Your task to perform on an android device: What's the weather today? Image 0: 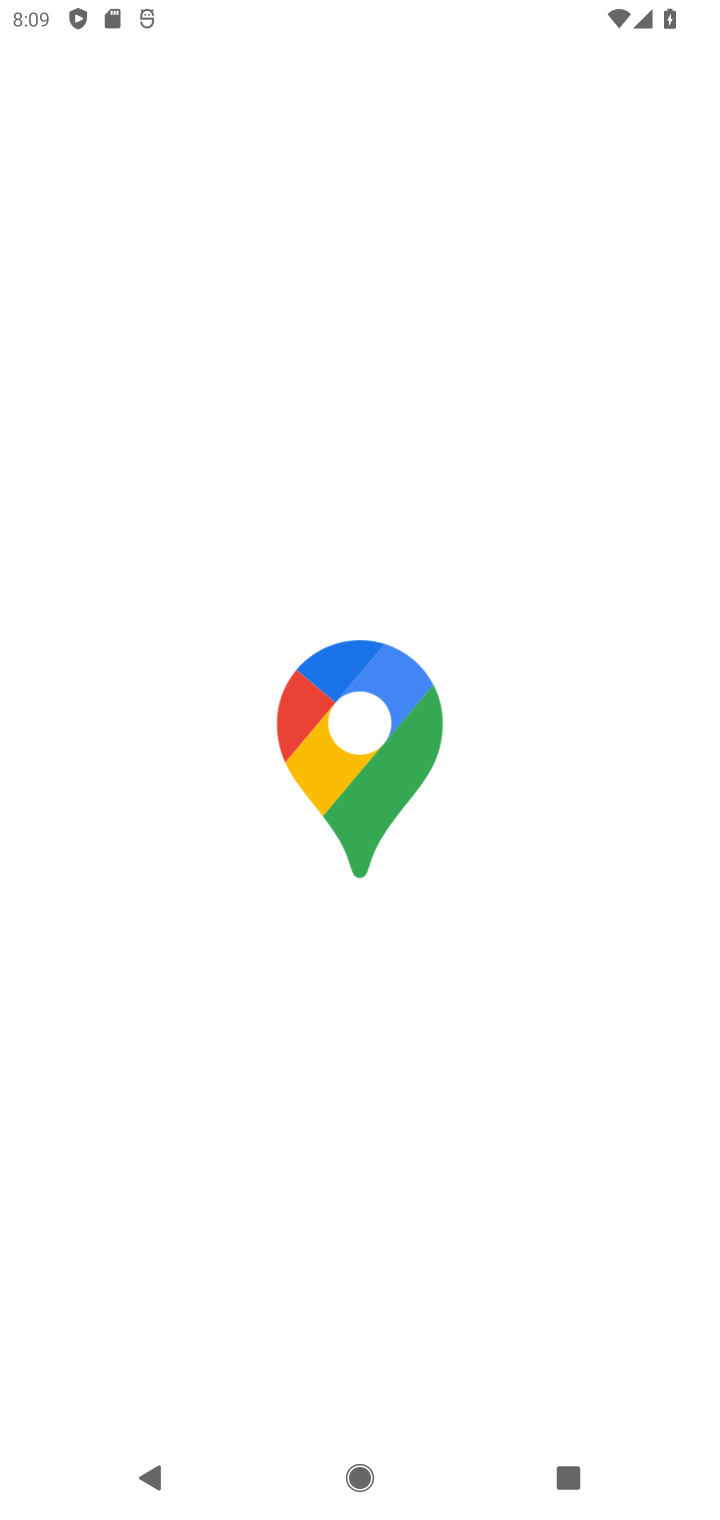
Step 0: press home button
Your task to perform on an android device: What's the weather today? Image 1: 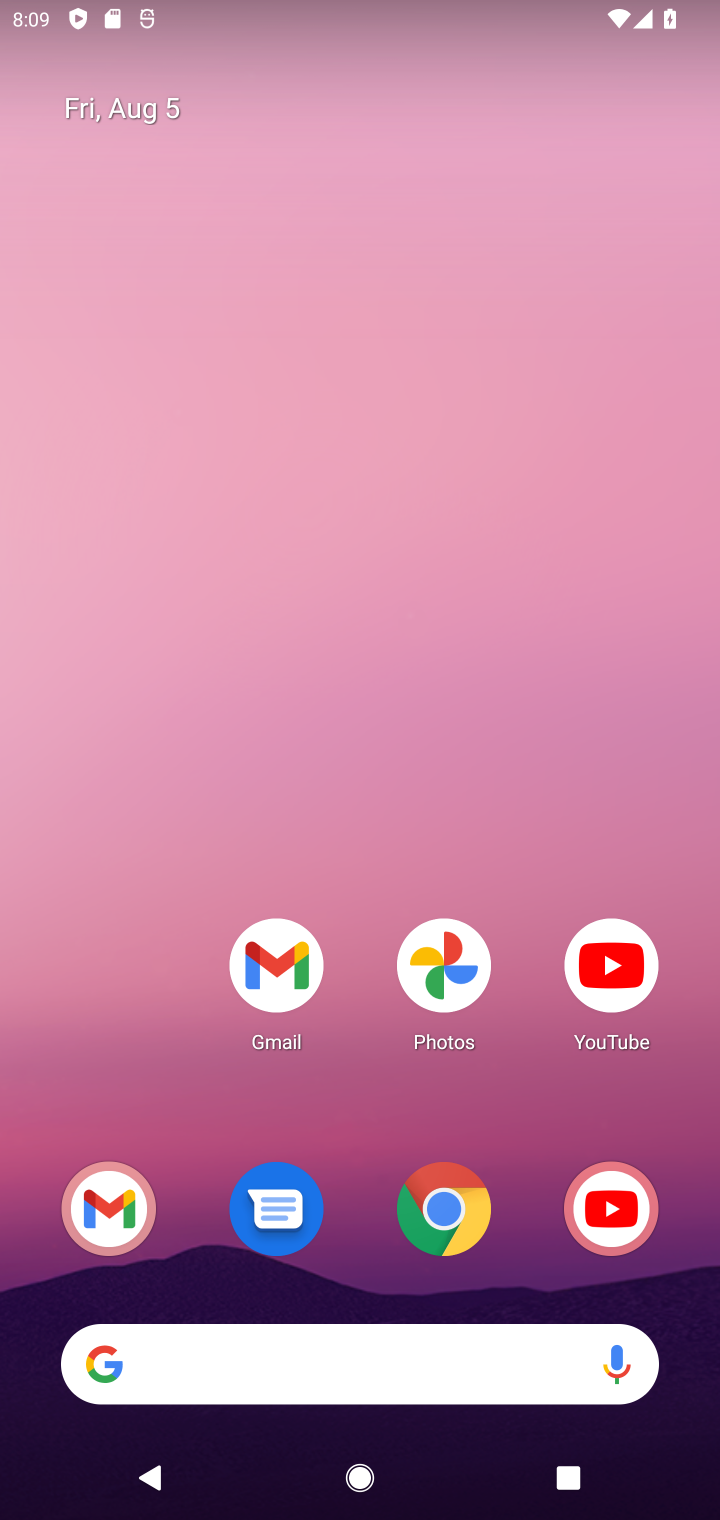
Step 1: click (245, 1349)
Your task to perform on an android device: What's the weather today? Image 2: 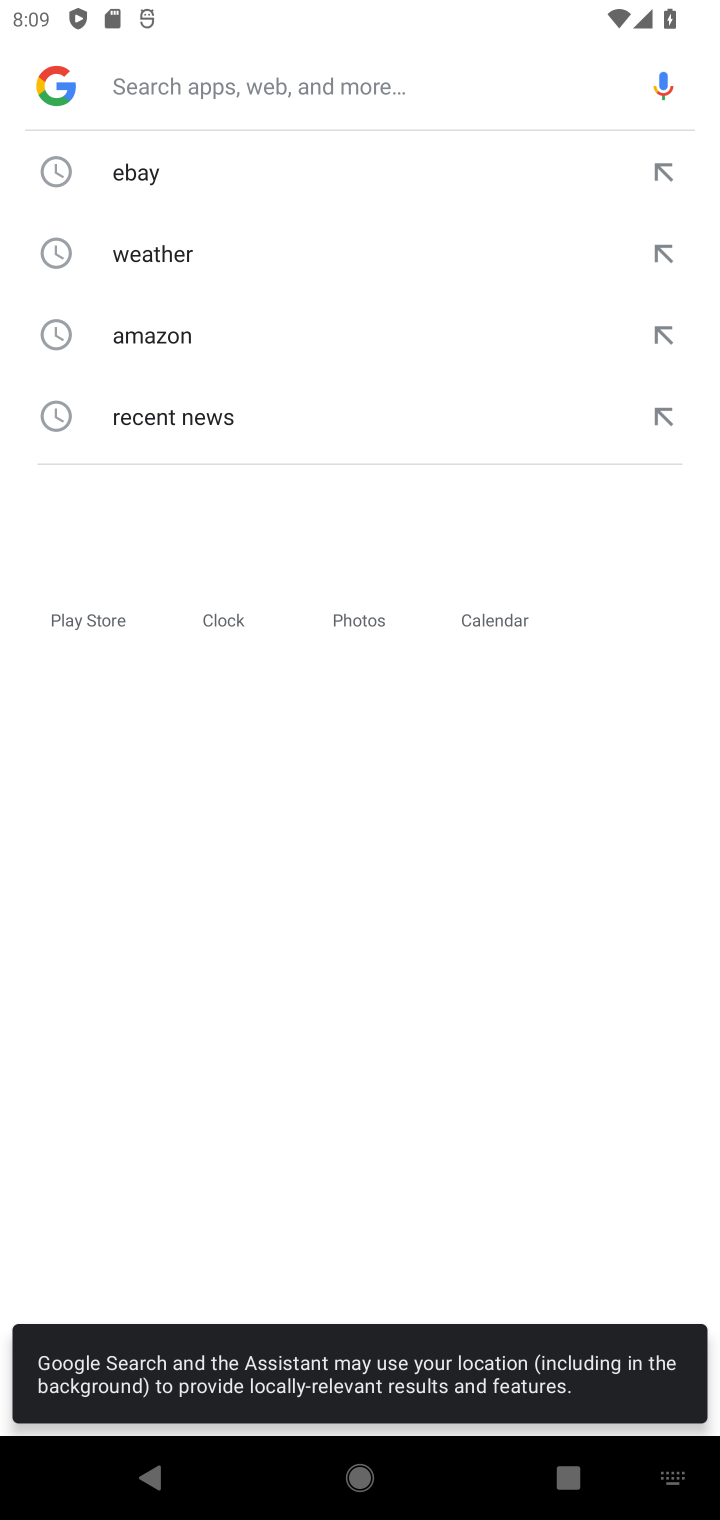
Step 2: click (127, 249)
Your task to perform on an android device: What's the weather today? Image 3: 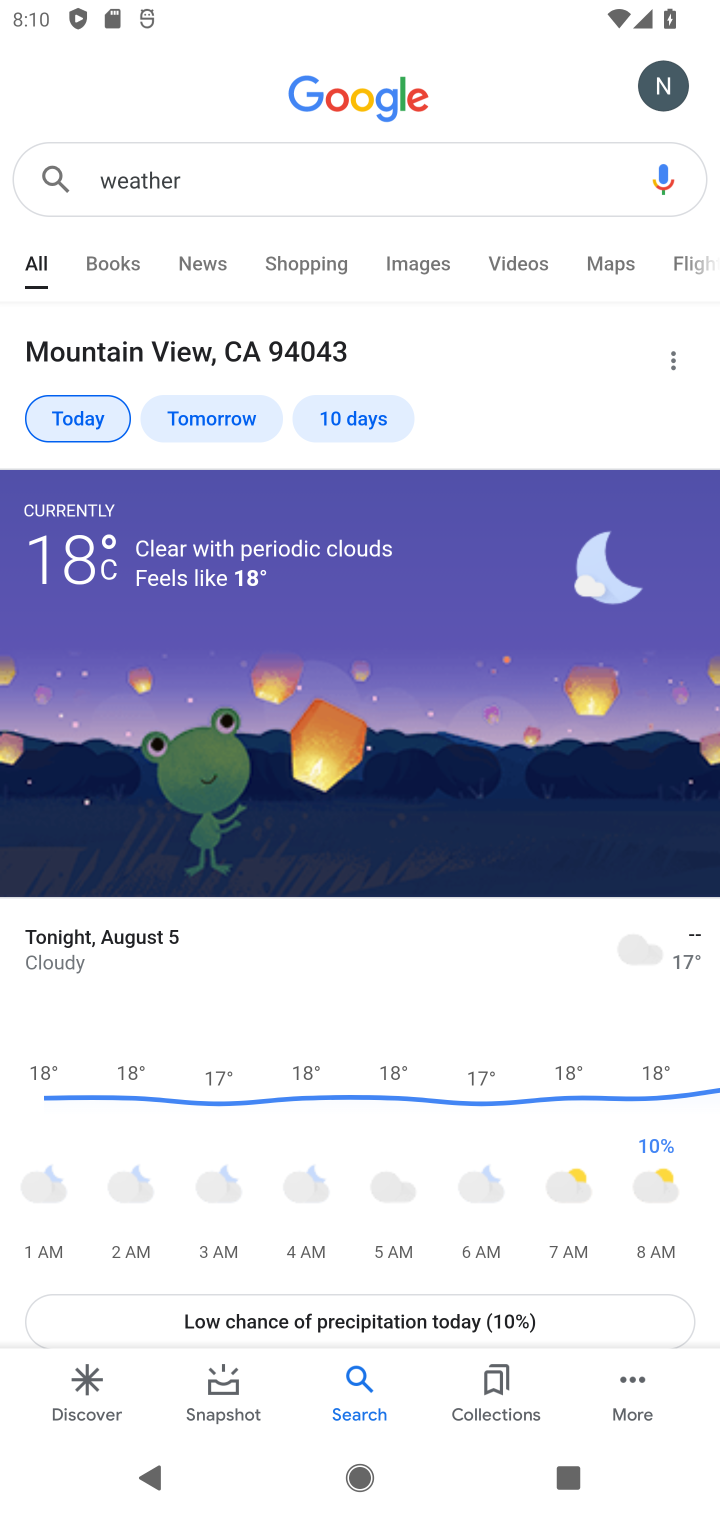
Step 3: task complete